Your task to perform on an android device: show emergency info Image 0: 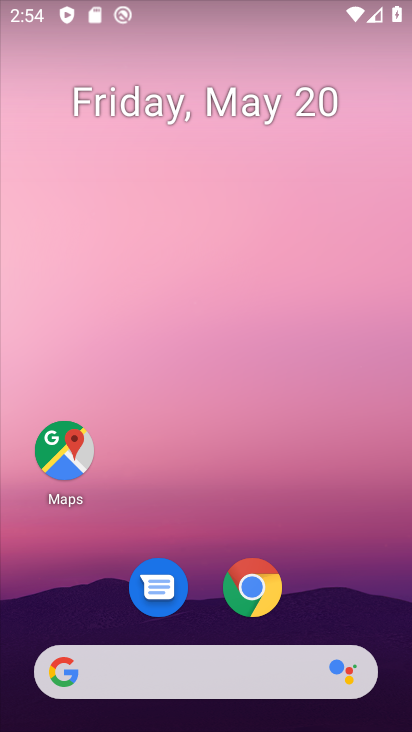
Step 0: drag from (134, 727) to (87, 139)
Your task to perform on an android device: show emergency info Image 1: 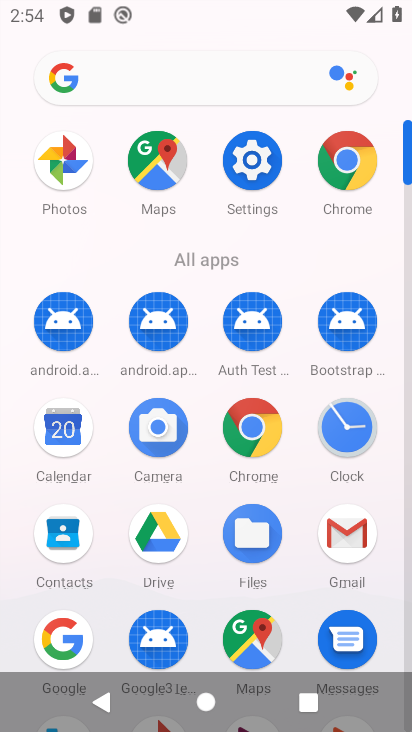
Step 1: click (257, 145)
Your task to perform on an android device: show emergency info Image 2: 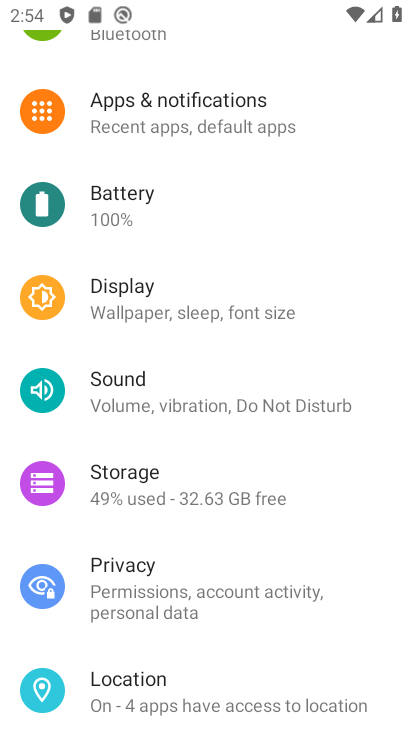
Step 2: drag from (337, 630) to (276, 83)
Your task to perform on an android device: show emergency info Image 3: 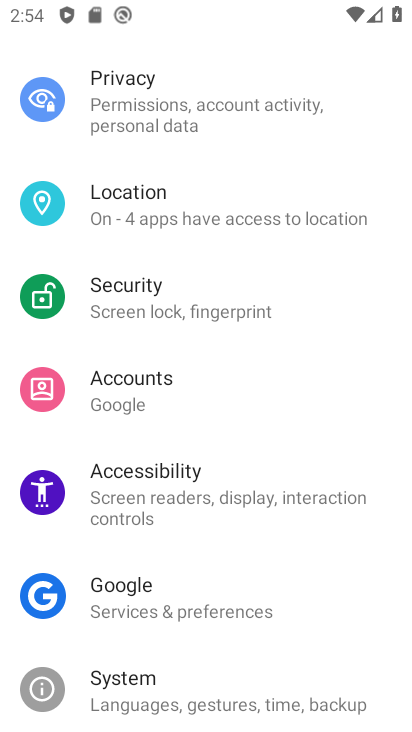
Step 3: drag from (260, 633) to (206, 57)
Your task to perform on an android device: show emergency info Image 4: 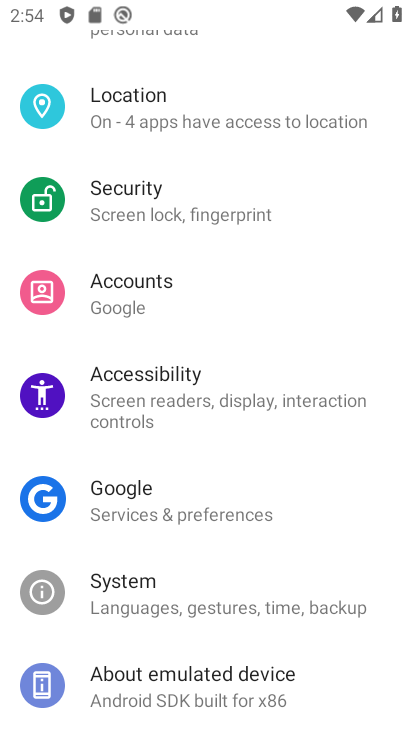
Step 4: click (161, 677)
Your task to perform on an android device: show emergency info Image 5: 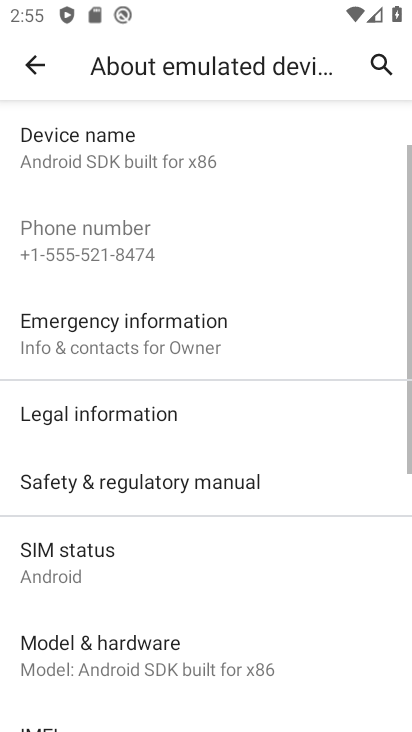
Step 5: click (187, 329)
Your task to perform on an android device: show emergency info Image 6: 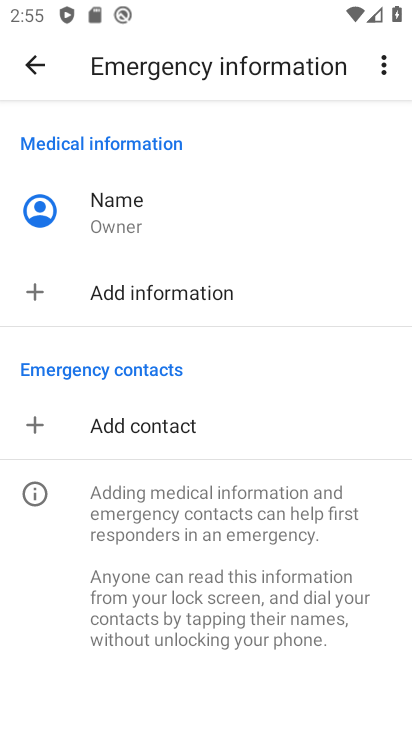
Step 6: task complete